Your task to perform on an android device: open app "Walmart Shopping & Grocery" (install if not already installed), go to login, and select forgot password Image 0: 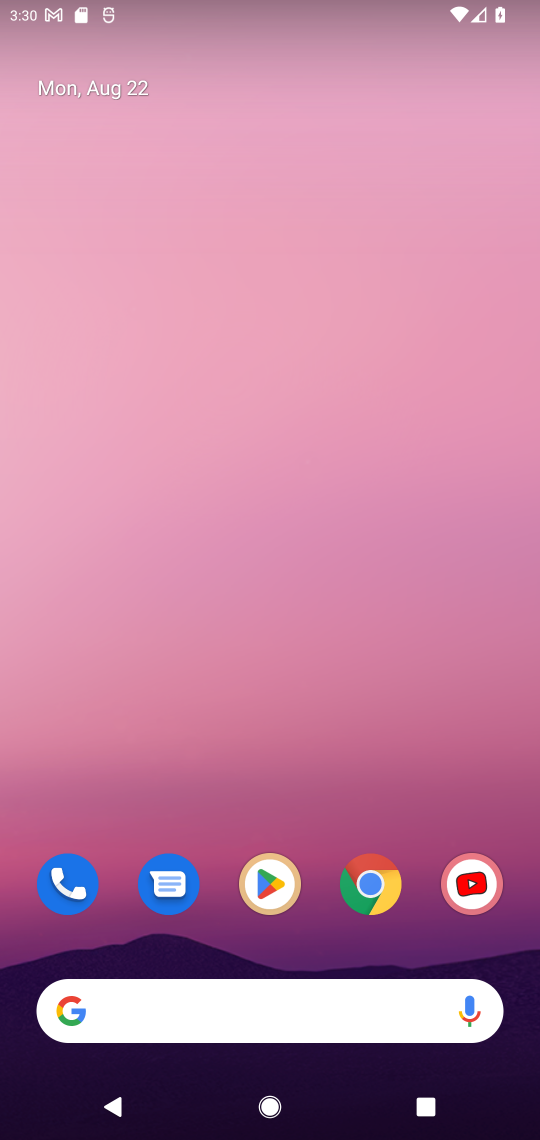
Step 0: click (290, 910)
Your task to perform on an android device: open app "Walmart Shopping & Grocery" (install if not already installed), go to login, and select forgot password Image 1: 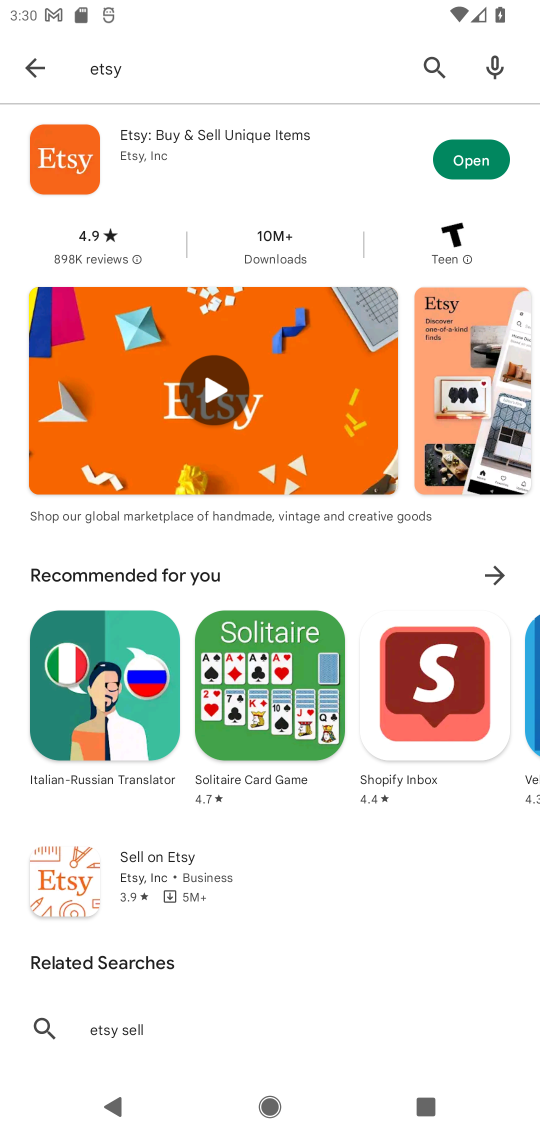
Step 1: click (166, 67)
Your task to perform on an android device: open app "Walmart Shopping & Grocery" (install if not already installed), go to login, and select forgot password Image 2: 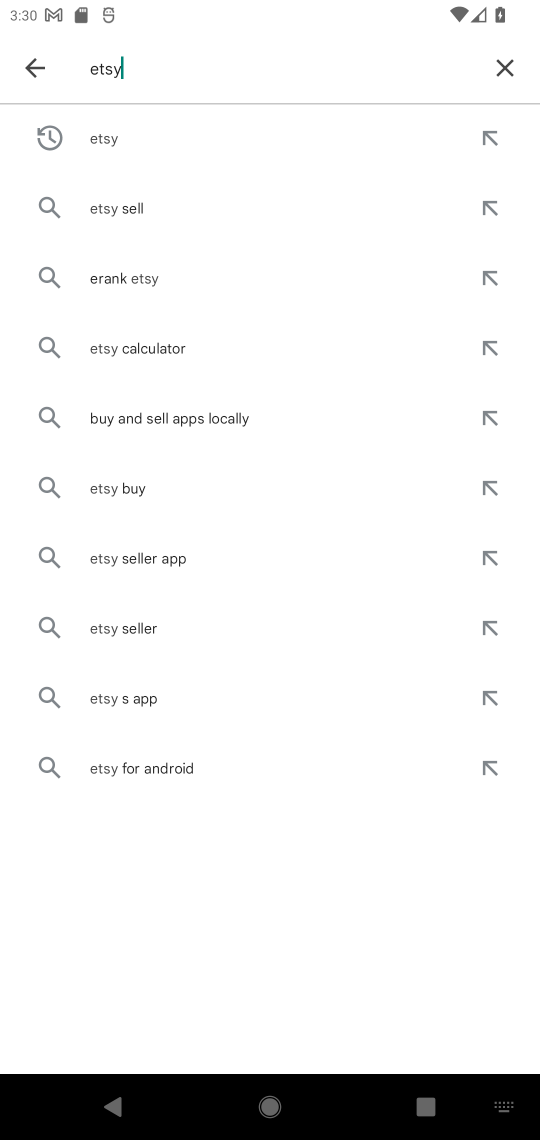
Step 2: click (494, 63)
Your task to perform on an android device: open app "Walmart Shopping & Grocery" (install if not already installed), go to login, and select forgot password Image 3: 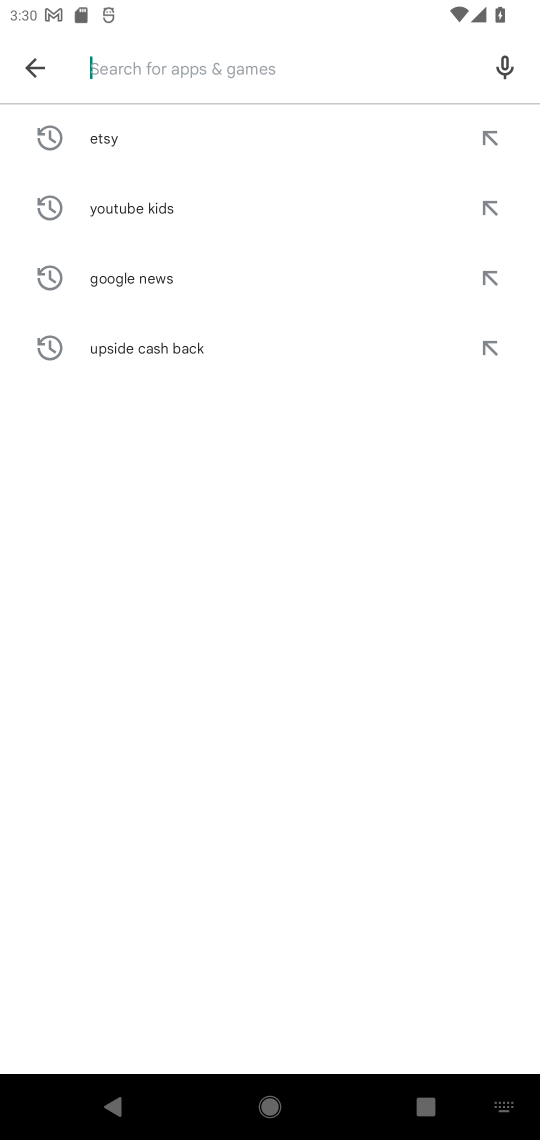
Step 3: type "Walmart"
Your task to perform on an android device: open app "Walmart Shopping & Grocery" (install if not already installed), go to login, and select forgot password Image 4: 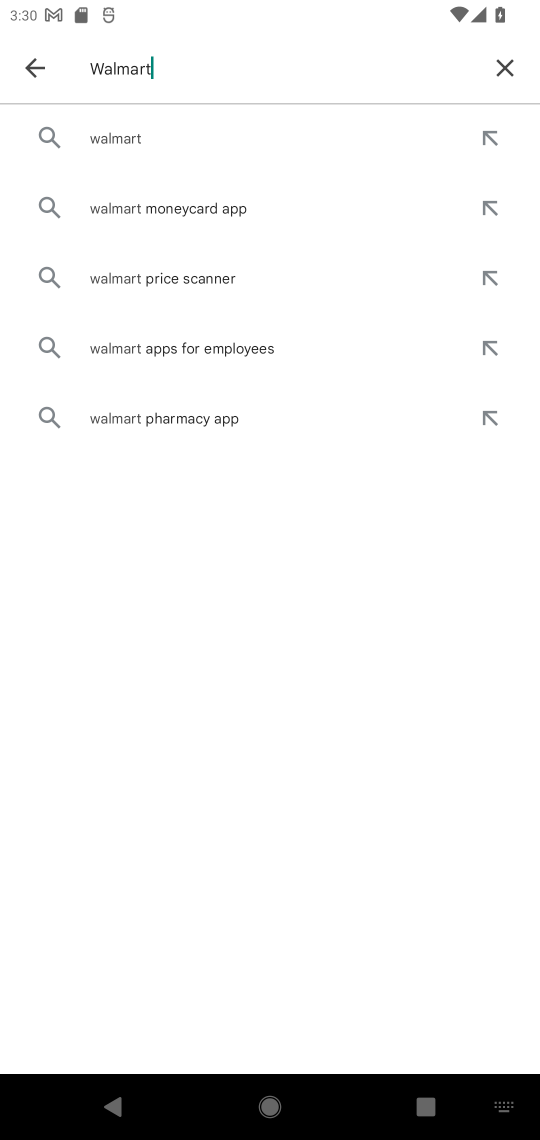
Step 4: click (113, 147)
Your task to perform on an android device: open app "Walmart Shopping & Grocery" (install if not already installed), go to login, and select forgot password Image 5: 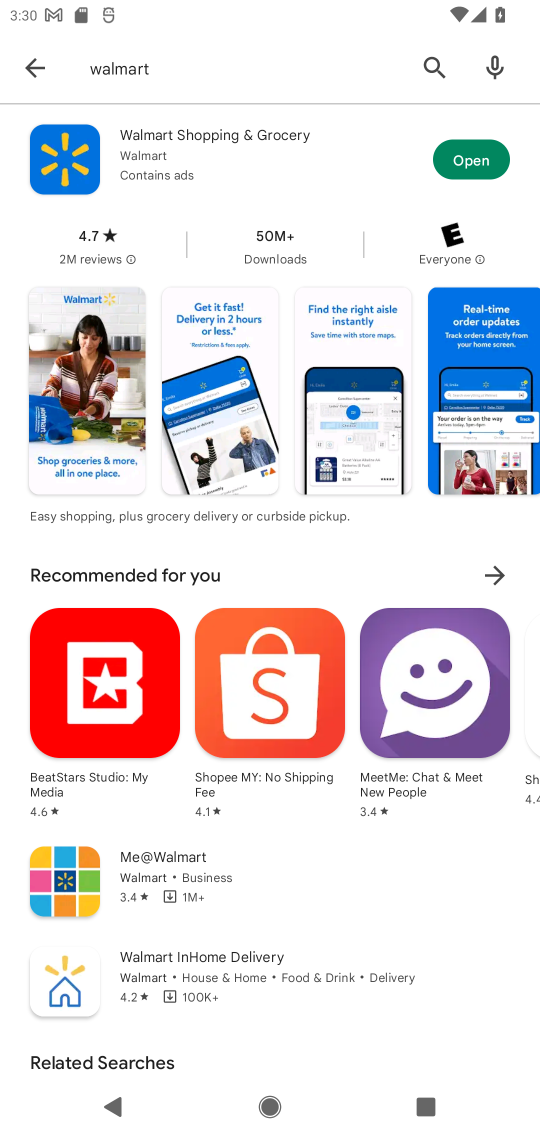
Step 5: click (484, 150)
Your task to perform on an android device: open app "Walmart Shopping & Grocery" (install if not already installed), go to login, and select forgot password Image 6: 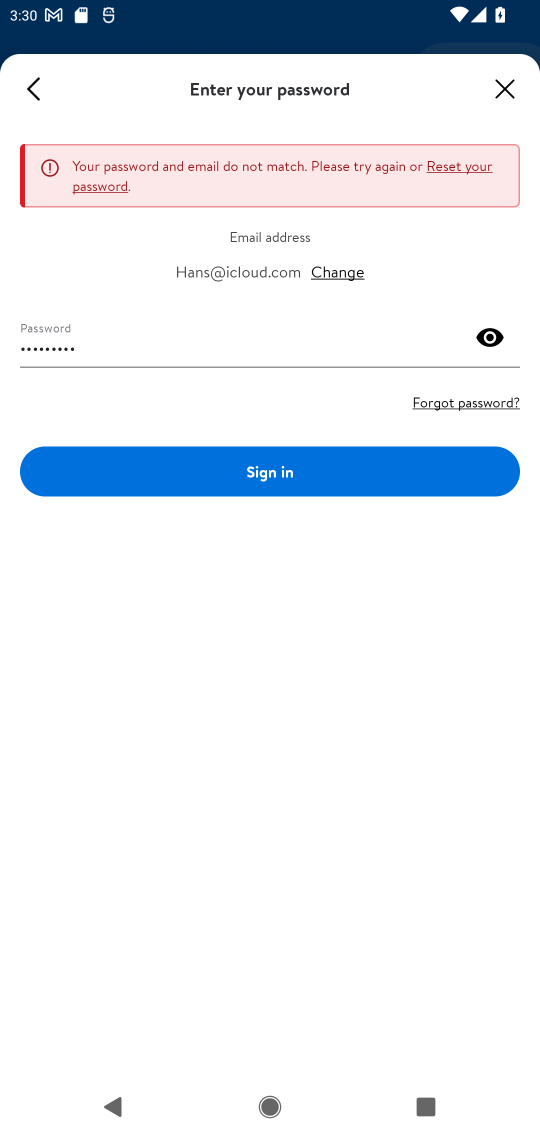
Step 6: click (474, 406)
Your task to perform on an android device: open app "Walmart Shopping & Grocery" (install if not already installed), go to login, and select forgot password Image 7: 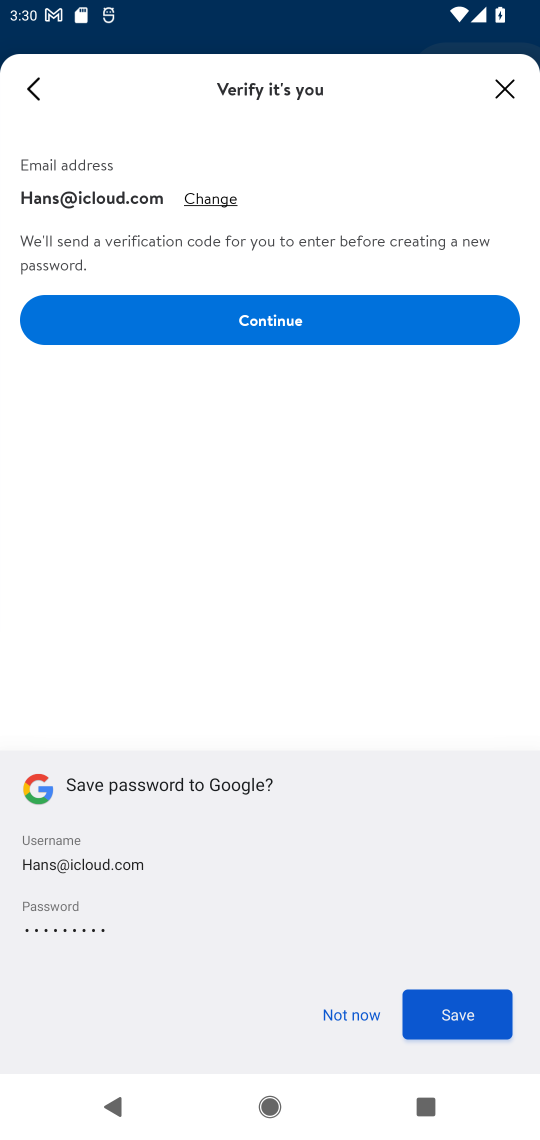
Step 7: click (325, 1012)
Your task to perform on an android device: open app "Walmart Shopping & Grocery" (install if not already installed), go to login, and select forgot password Image 8: 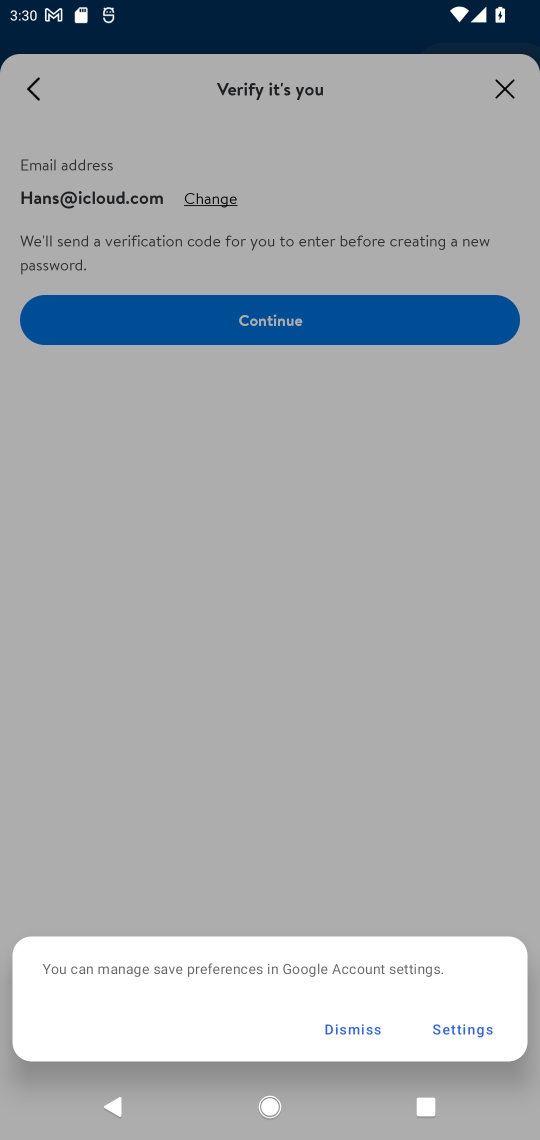
Step 8: task complete